Your task to perform on an android device: check google app version Image 0: 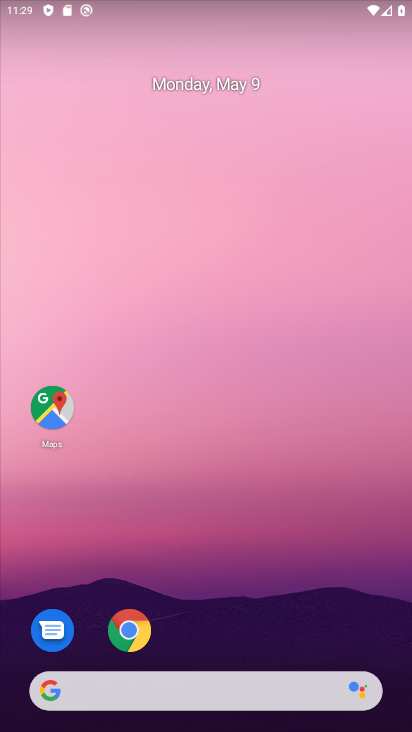
Step 0: press home button
Your task to perform on an android device: check google app version Image 1: 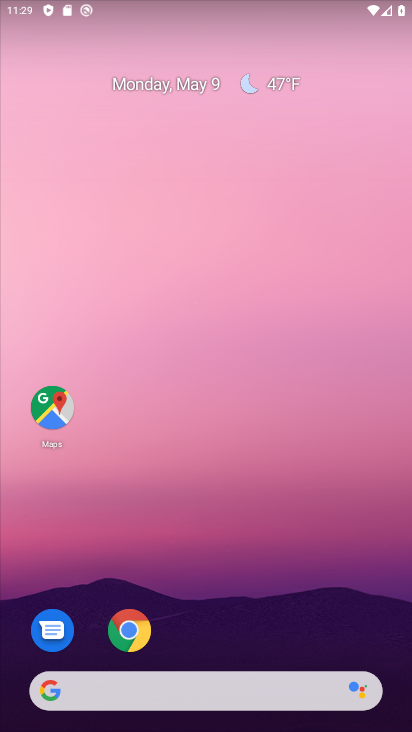
Step 1: drag from (139, 694) to (285, 109)
Your task to perform on an android device: check google app version Image 2: 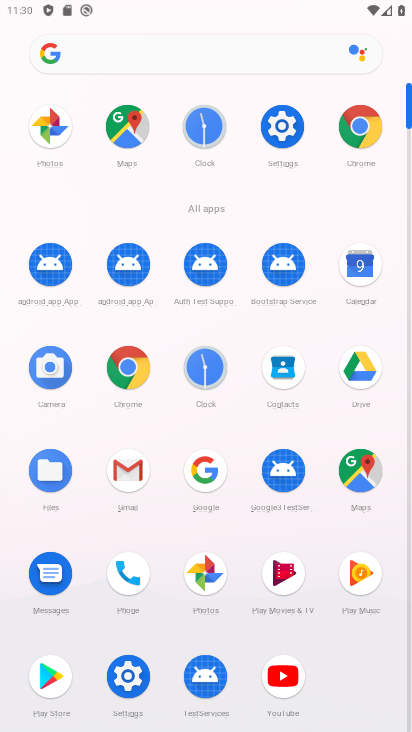
Step 2: click (206, 471)
Your task to perform on an android device: check google app version Image 3: 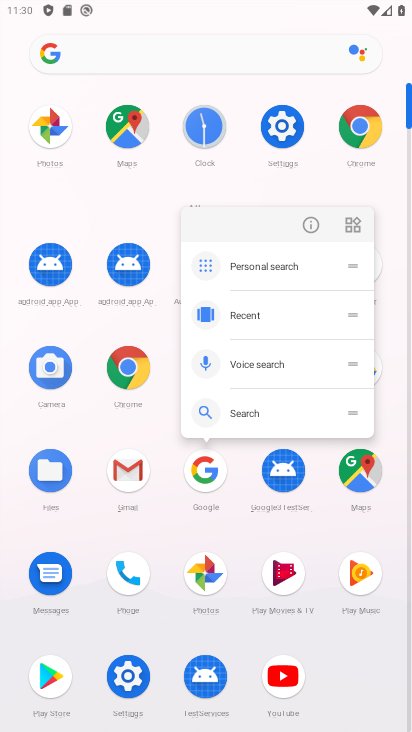
Step 3: click (305, 229)
Your task to perform on an android device: check google app version Image 4: 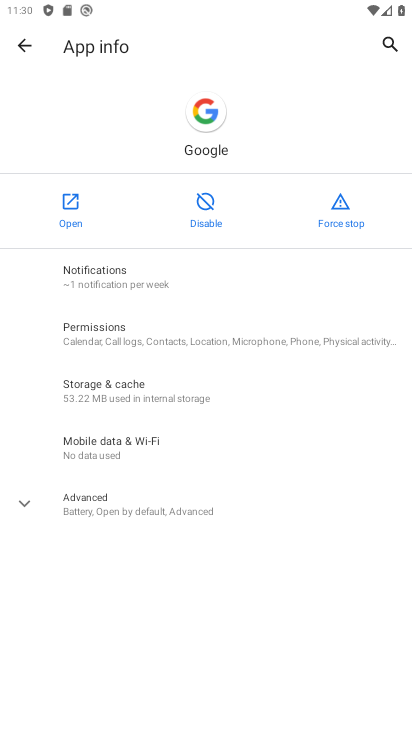
Step 4: click (92, 502)
Your task to perform on an android device: check google app version Image 5: 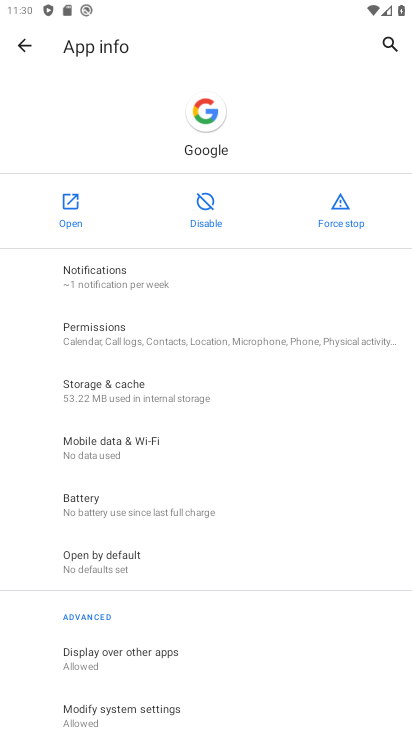
Step 5: task complete